Your task to perform on an android device: Open accessibility settings Image 0: 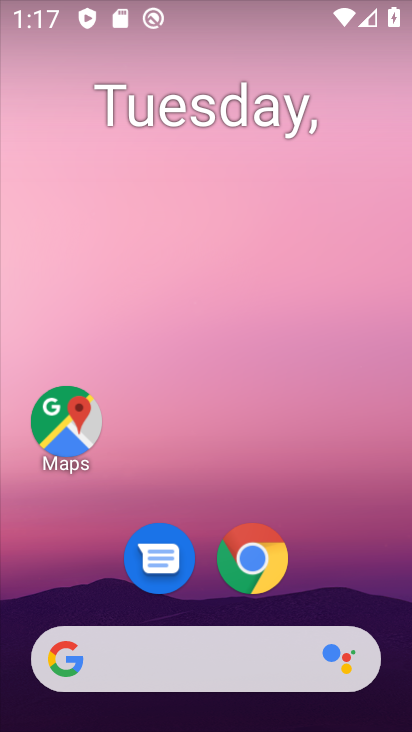
Step 0: drag from (180, 579) to (333, 31)
Your task to perform on an android device: Open accessibility settings Image 1: 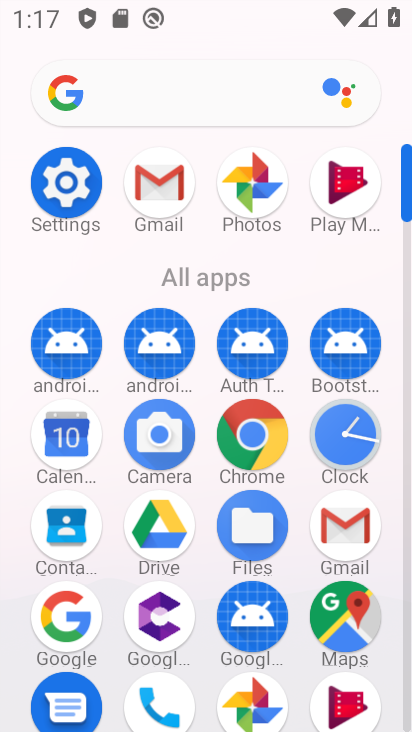
Step 1: click (62, 175)
Your task to perform on an android device: Open accessibility settings Image 2: 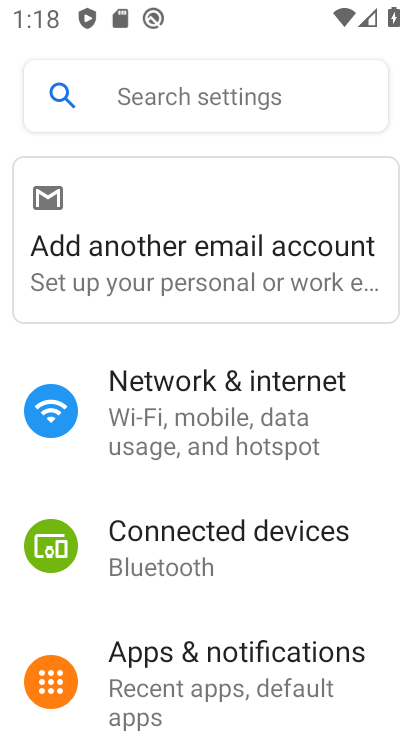
Step 2: drag from (186, 629) to (282, 98)
Your task to perform on an android device: Open accessibility settings Image 3: 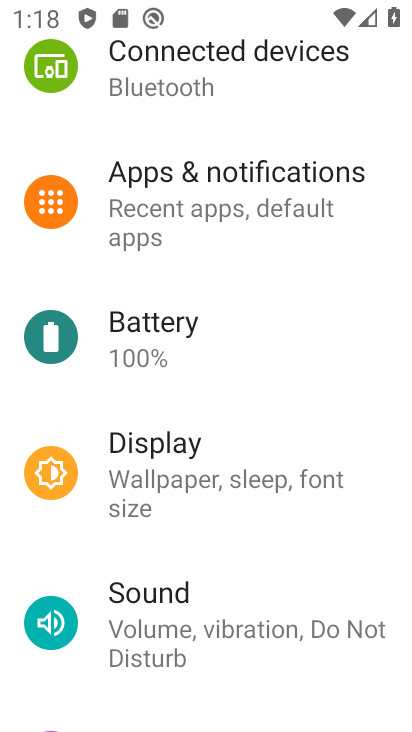
Step 3: drag from (208, 596) to (367, 57)
Your task to perform on an android device: Open accessibility settings Image 4: 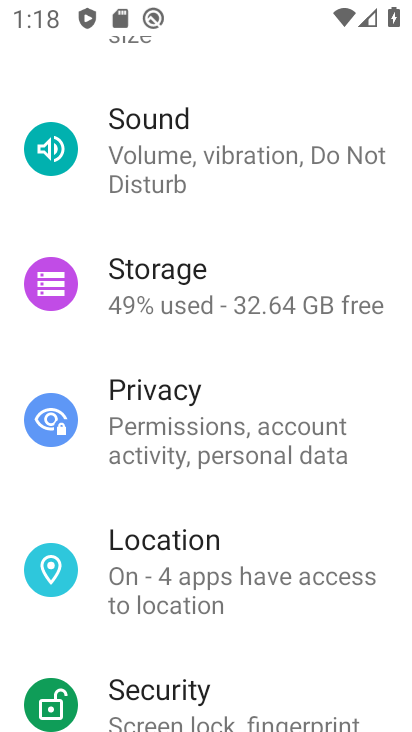
Step 4: drag from (189, 679) to (343, 121)
Your task to perform on an android device: Open accessibility settings Image 5: 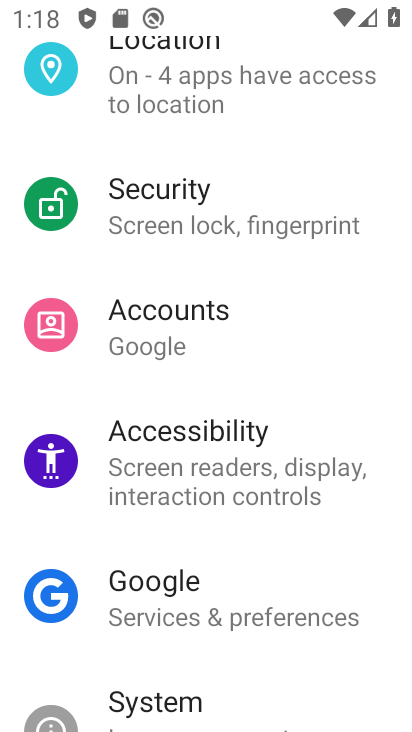
Step 5: click (184, 472)
Your task to perform on an android device: Open accessibility settings Image 6: 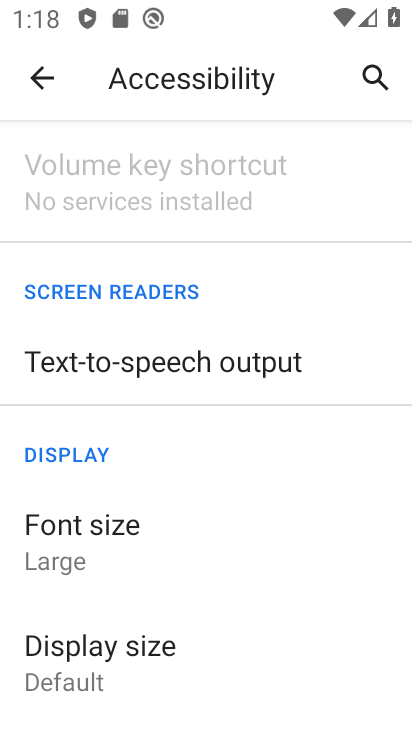
Step 6: task complete